Your task to perform on an android device: Open Google Chrome and click the shortcut for Amazon.com Image 0: 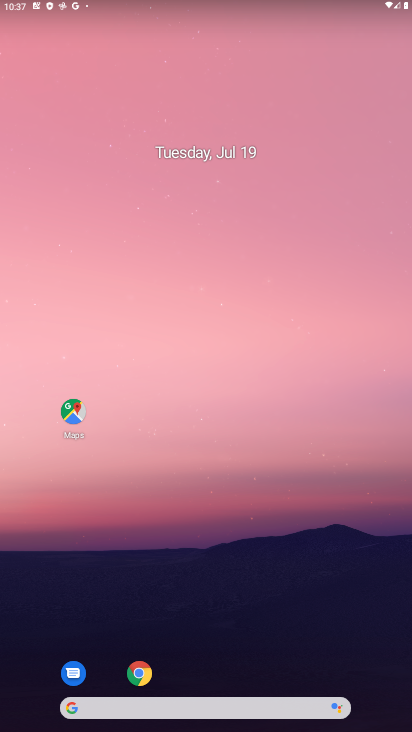
Step 0: click (146, 675)
Your task to perform on an android device: Open Google Chrome and click the shortcut for Amazon.com Image 1: 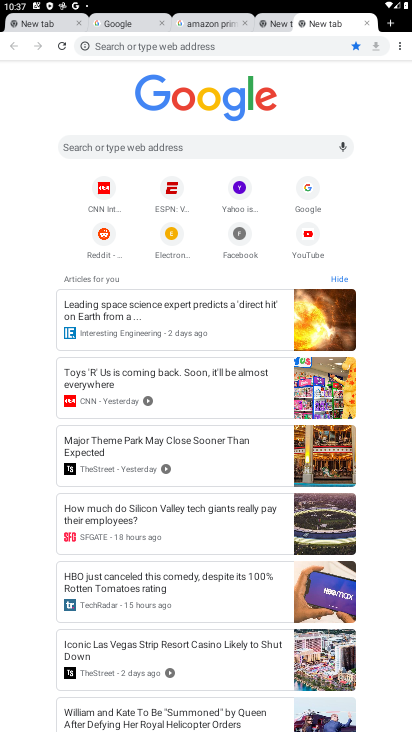
Step 1: click (395, 53)
Your task to perform on an android device: Open Google Chrome and click the shortcut for Amazon.com Image 2: 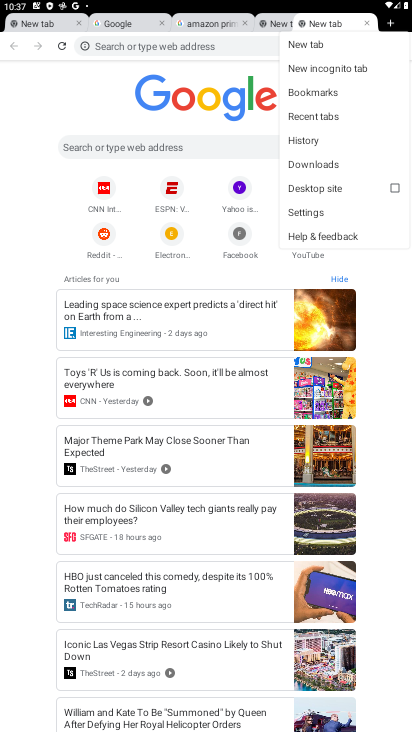
Step 2: click (41, 213)
Your task to perform on an android device: Open Google Chrome and click the shortcut for Amazon.com Image 3: 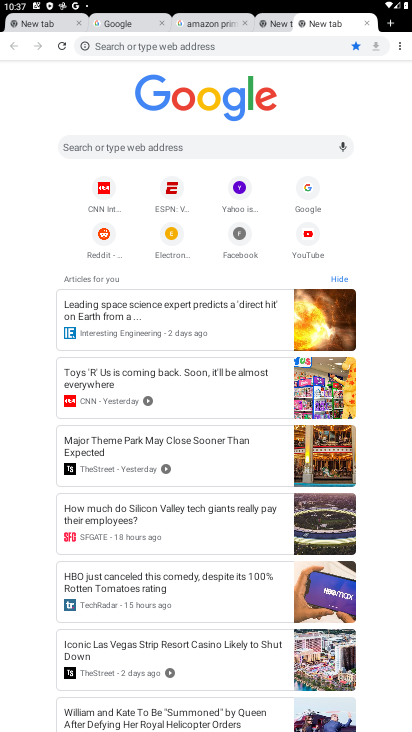
Step 3: click (230, 45)
Your task to perform on an android device: Open Google Chrome and click the shortcut for Amazon.com Image 4: 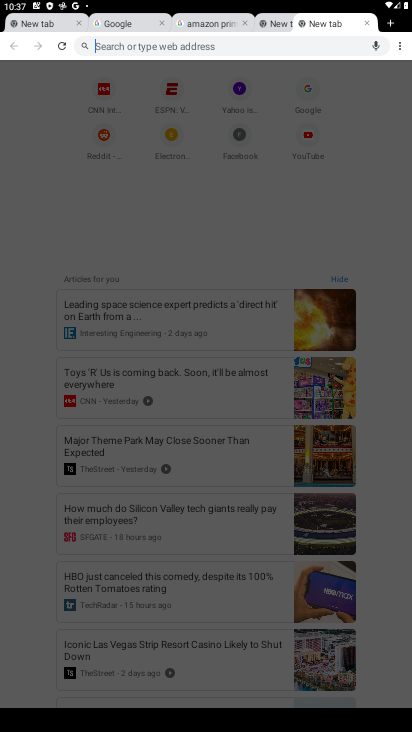
Step 4: type "amazon"
Your task to perform on an android device: Open Google Chrome and click the shortcut for Amazon.com Image 5: 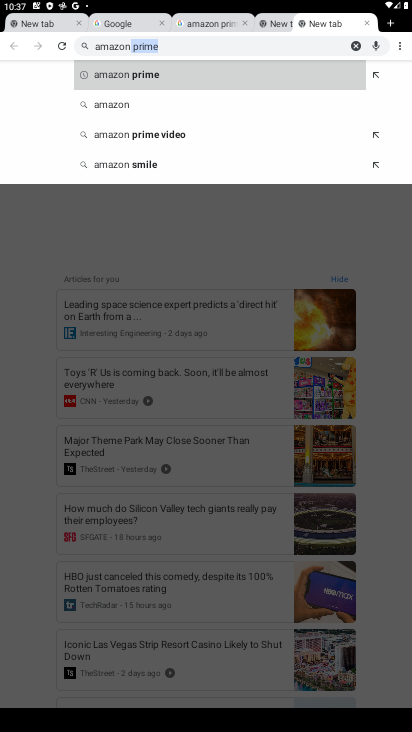
Step 5: click (136, 110)
Your task to perform on an android device: Open Google Chrome and click the shortcut for Amazon.com Image 6: 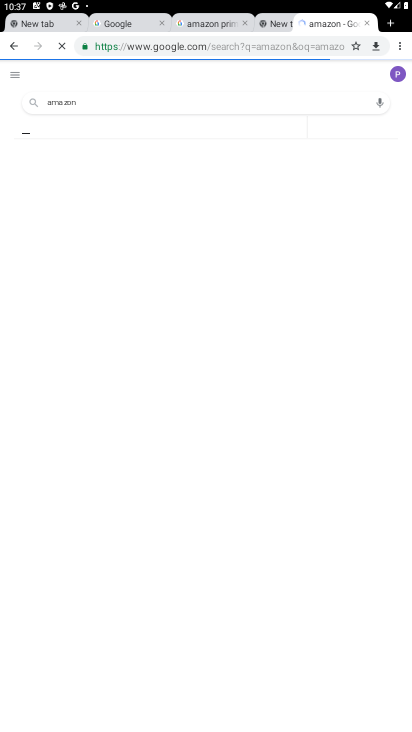
Step 6: task complete